Your task to perform on an android device: Go to privacy settings Image 0: 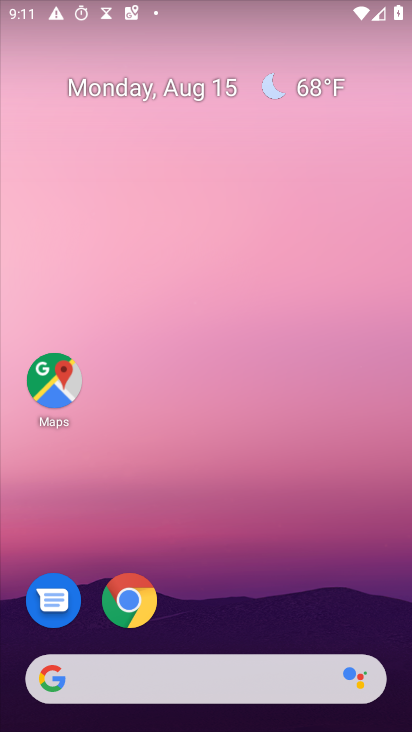
Step 0: drag from (201, 642) to (182, 89)
Your task to perform on an android device: Go to privacy settings Image 1: 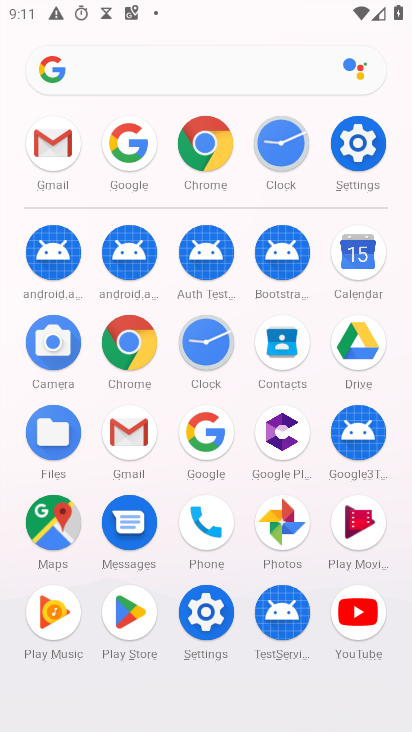
Step 1: click (369, 140)
Your task to perform on an android device: Go to privacy settings Image 2: 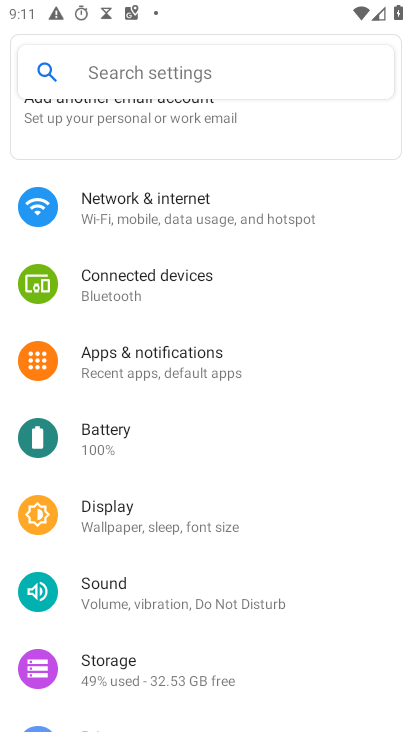
Step 2: drag from (94, 668) to (116, 336)
Your task to perform on an android device: Go to privacy settings Image 3: 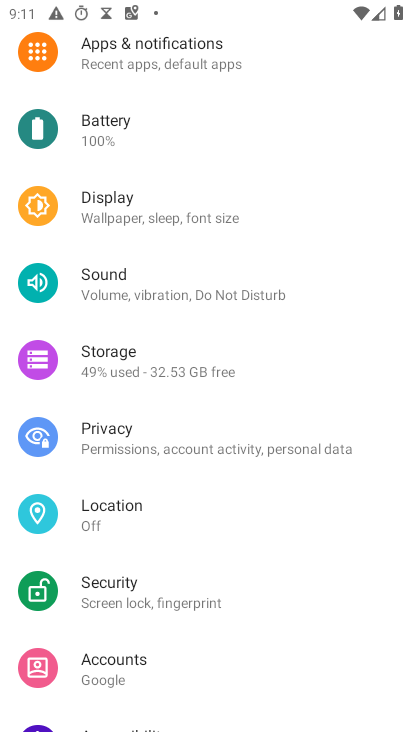
Step 3: click (112, 429)
Your task to perform on an android device: Go to privacy settings Image 4: 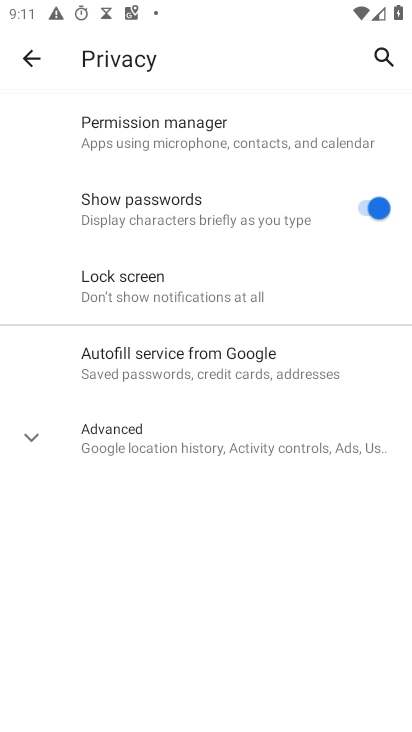
Step 4: task complete